Your task to perform on an android device: Open the Play Movies app and select the watchlist tab. Image 0: 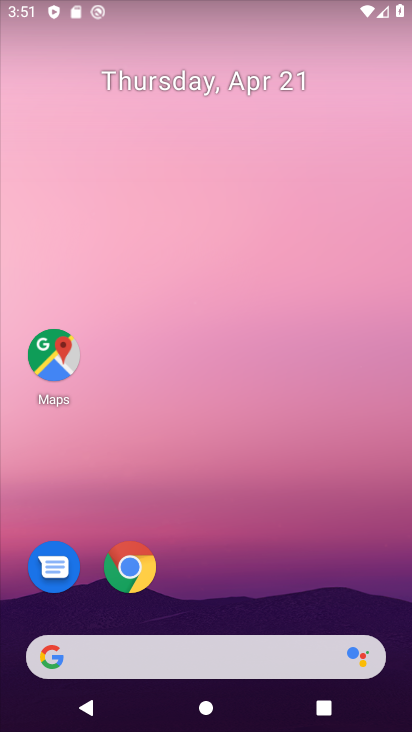
Step 0: drag from (205, 484) to (92, 180)
Your task to perform on an android device: Open the Play Movies app and select the watchlist tab. Image 1: 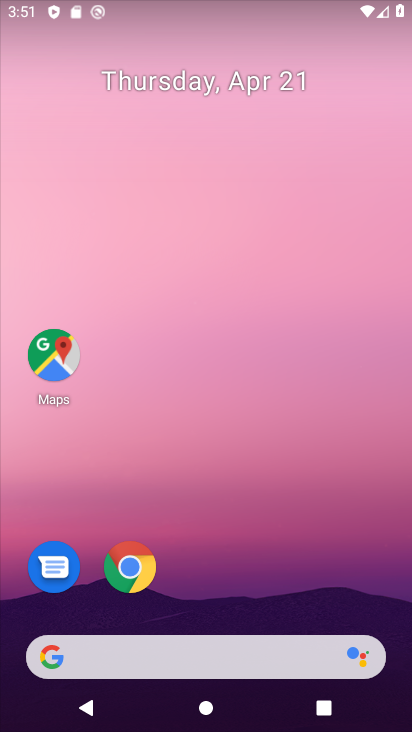
Step 1: drag from (232, 323) to (192, 204)
Your task to perform on an android device: Open the Play Movies app and select the watchlist tab. Image 2: 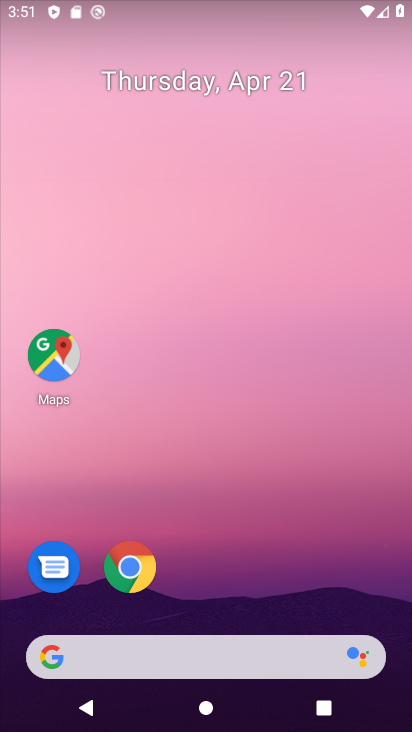
Step 2: drag from (248, 441) to (210, 293)
Your task to perform on an android device: Open the Play Movies app and select the watchlist tab. Image 3: 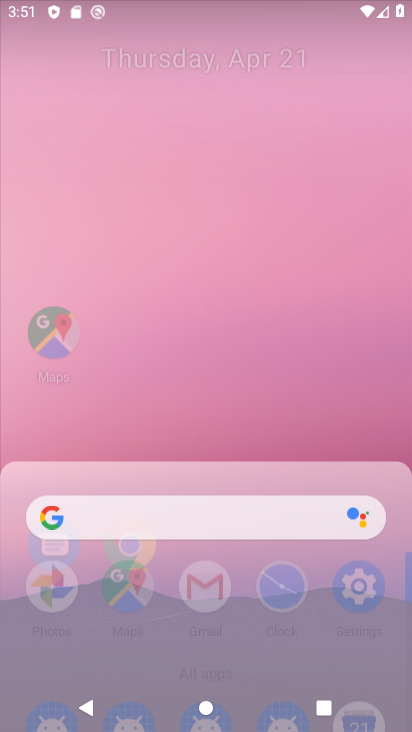
Step 3: drag from (270, 462) to (162, 183)
Your task to perform on an android device: Open the Play Movies app and select the watchlist tab. Image 4: 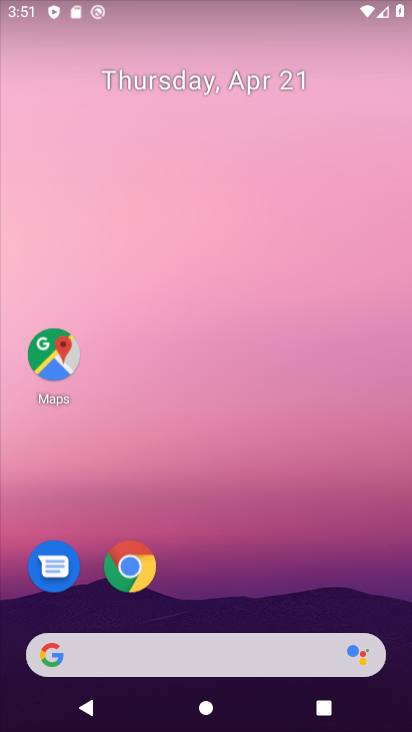
Step 4: drag from (218, 314) to (149, 149)
Your task to perform on an android device: Open the Play Movies app and select the watchlist tab. Image 5: 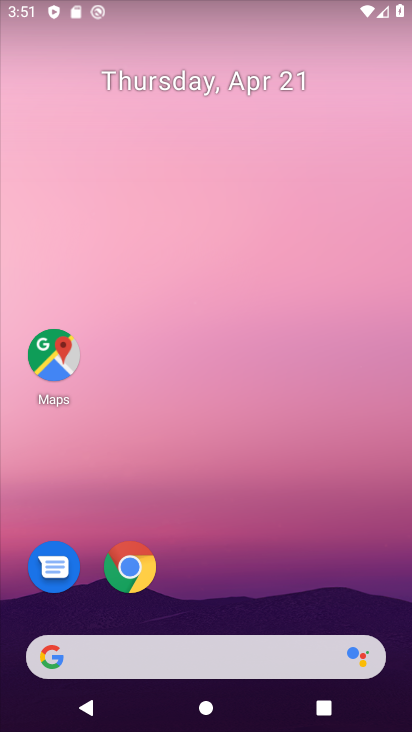
Step 5: drag from (138, 194) to (126, 150)
Your task to perform on an android device: Open the Play Movies app and select the watchlist tab. Image 6: 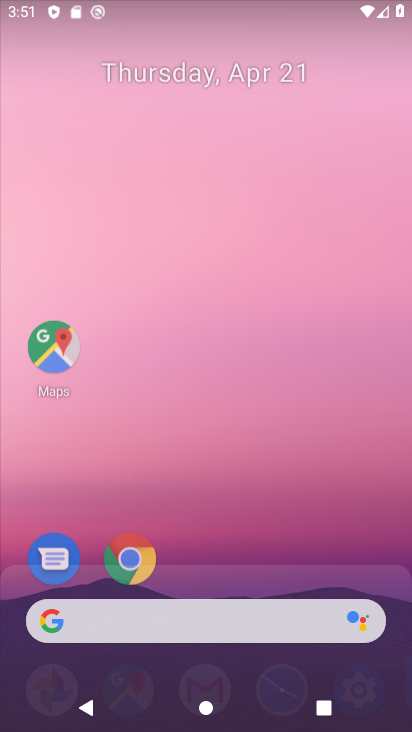
Step 6: click (103, 98)
Your task to perform on an android device: Open the Play Movies app and select the watchlist tab. Image 7: 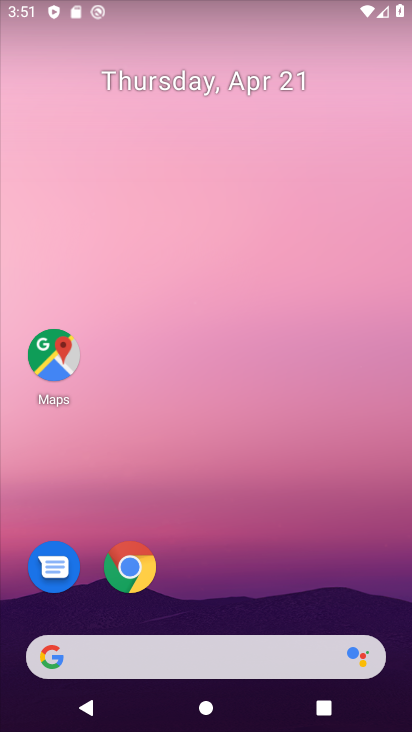
Step 7: drag from (178, 250) to (113, 79)
Your task to perform on an android device: Open the Play Movies app and select the watchlist tab. Image 8: 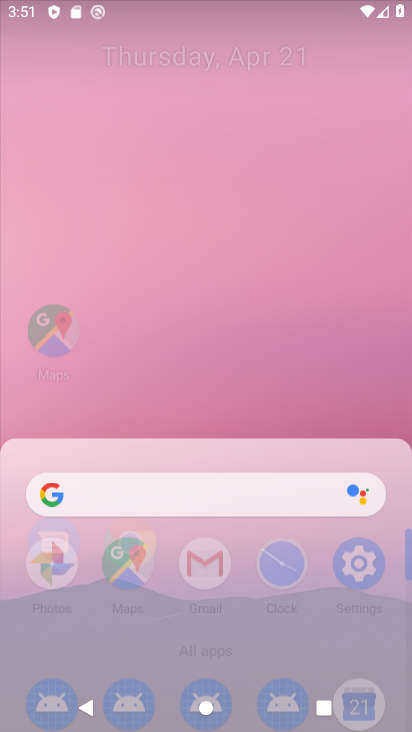
Step 8: drag from (144, 187) to (135, 143)
Your task to perform on an android device: Open the Play Movies app and select the watchlist tab. Image 9: 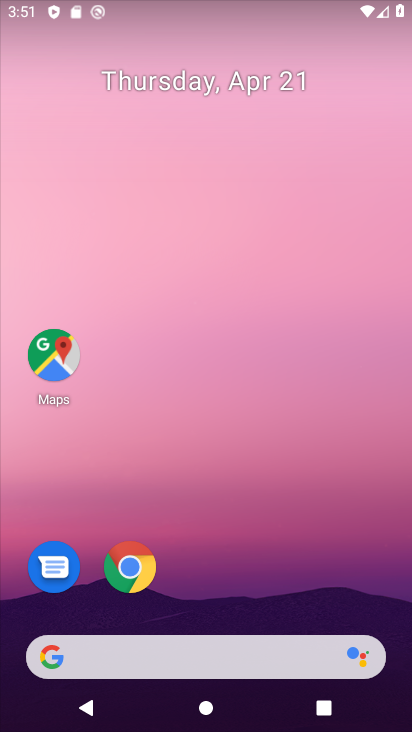
Step 9: drag from (116, 286) to (50, 81)
Your task to perform on an android device: Open the Play Movies app and select the watchlist tab. Image 10: 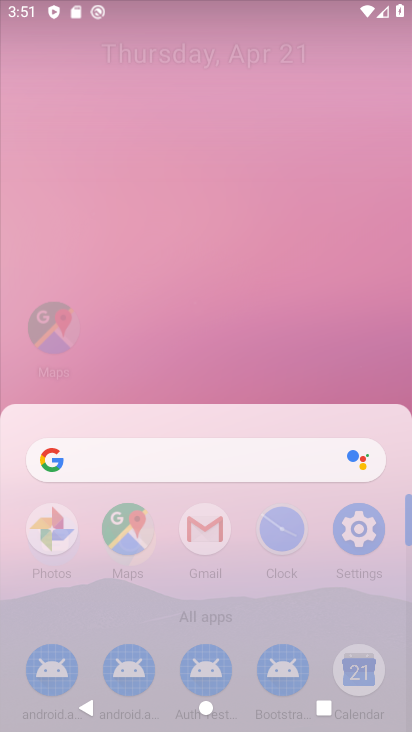
Step 10: drag from (106, 247) to (46, 0)
Your task to perform on an android device: Open the Play Movies app and select the watchlist tab. Image 11: 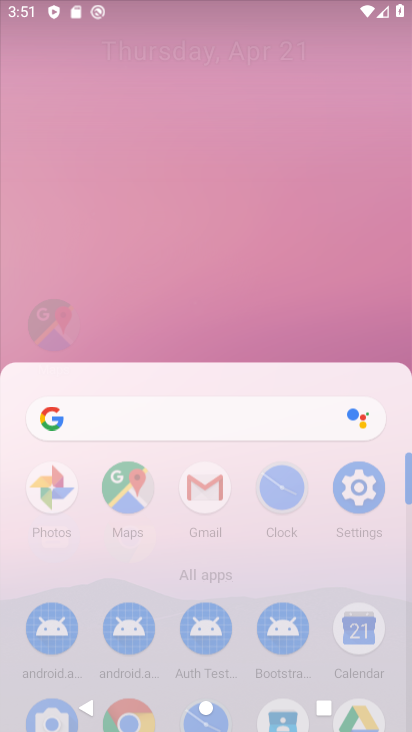
Step 11: drag from (177, 180) to (159, 19)
Your task to perform on an android device: Open the Play Movies app and select the watchlist tab. Image 12: 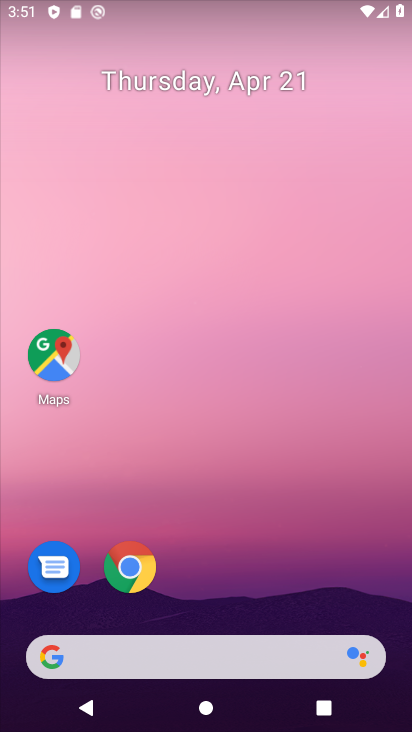
Step 12: drag from (233, 417) to (119, 118)
Your task to perform on an android device: Open the Play Movies app and select the watchlist tab. Image 13: 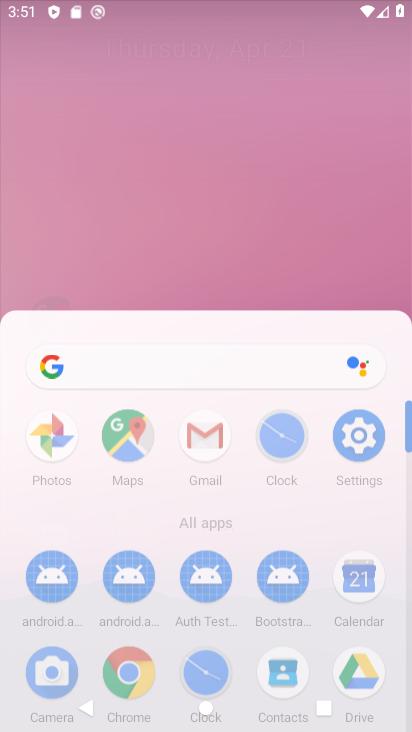
Step 13: click (163, 149)
Your task to perform on an android device: Open the Play Movies app and select the watchlist tab. Image 14: 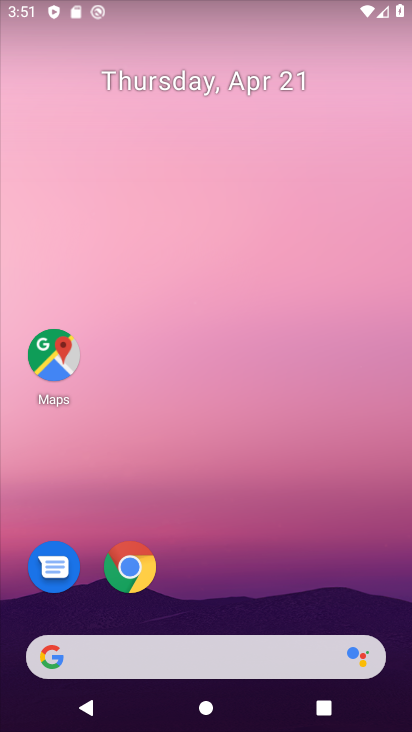
Step 14: drag from (213, 341) to (123, 58)
Your task to perform on an android device: Open the Play Movies app and select the watchlist tab. Image 15: 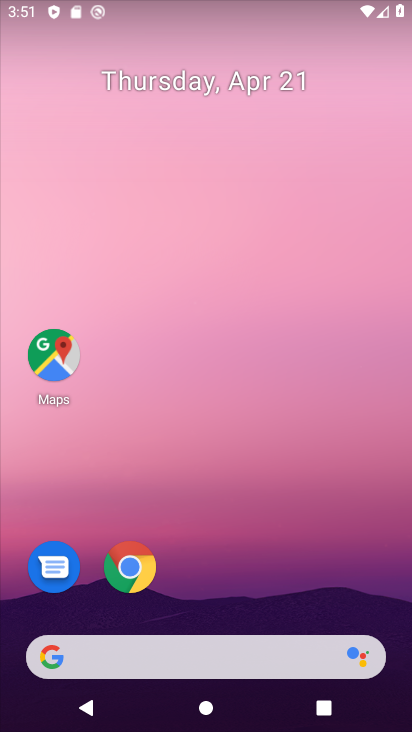
Step 15: drag from (133, 92) to (119, 44)
Your task to perform on an android device: Open the Play Movies app and select the watchlist tab. Image 16: 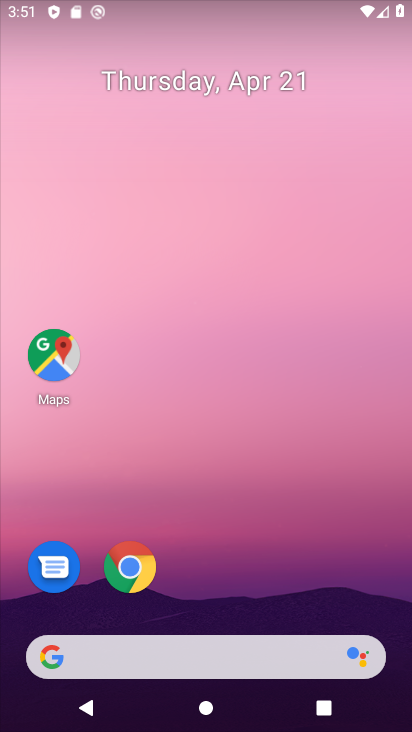
Step 16: drag from (152, 373) to (42, 32)
Your task to perform on an android device: Open the Play Movies app and select the watchlist tab. Image 17: 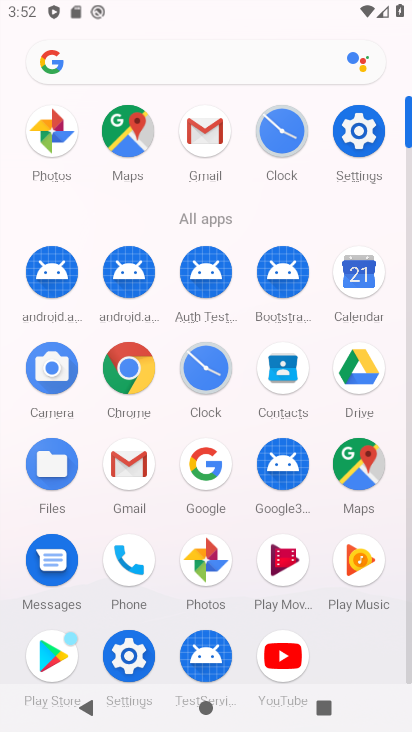
Step 17: click (276, 557)
Your task to perform on an android device: Open the Play Movies app and select the watchlist tab. Image 18: 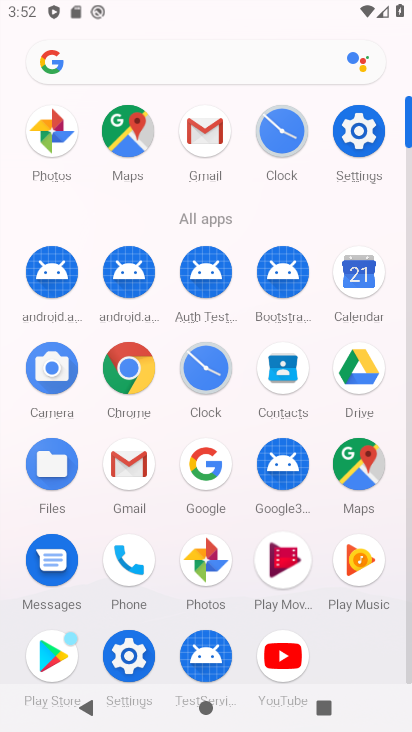
Step 18: click (277, 556)
Your task to perform on an android device: Open the Play Movies app and select the watchlist tab. Image 19: 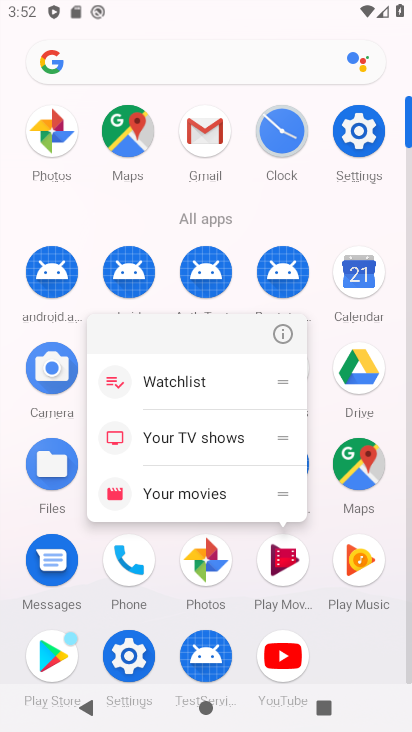
Step 19: click (277, 556)
Your task to perform on an android device: Open the Play Movies app and select the watchlist tab. Image 20: 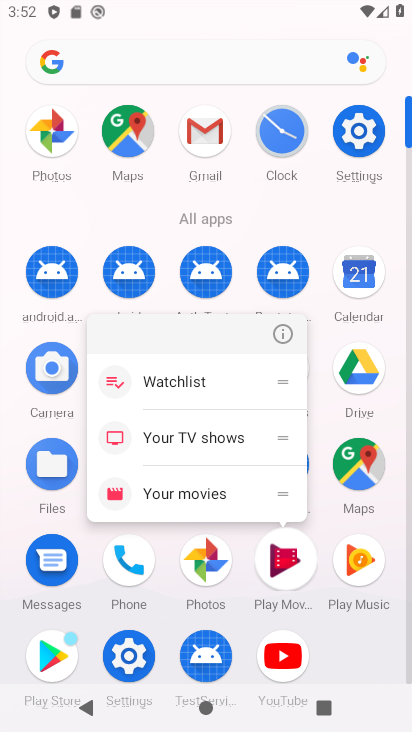
Step 20: click (280, 555)
Your task to perform on an android device: Open the Play Movies app and select the watchlist tab. Image 21: 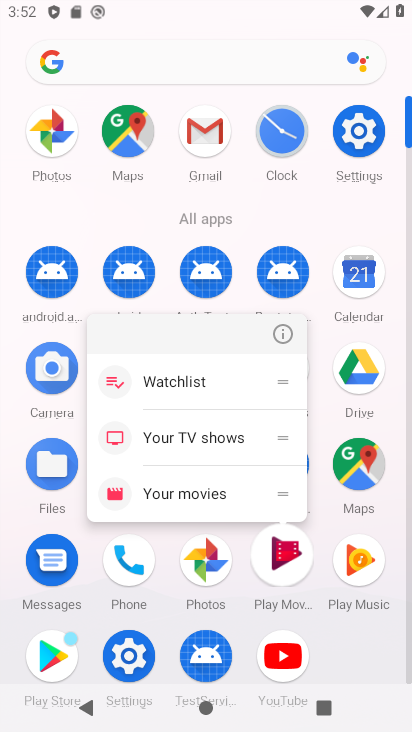
Step 21: click (279, 550)
Your task to perform on an android device: Open the Play Movies app and select the watchlist tab. Image 22: 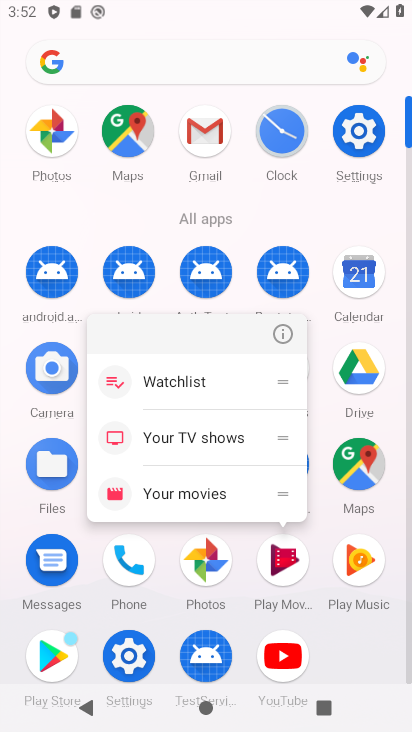
Step 22: click (284, 560)
Your task to perform on an android device: Open the Play Movies app and select the watchlist tab. Image 23: 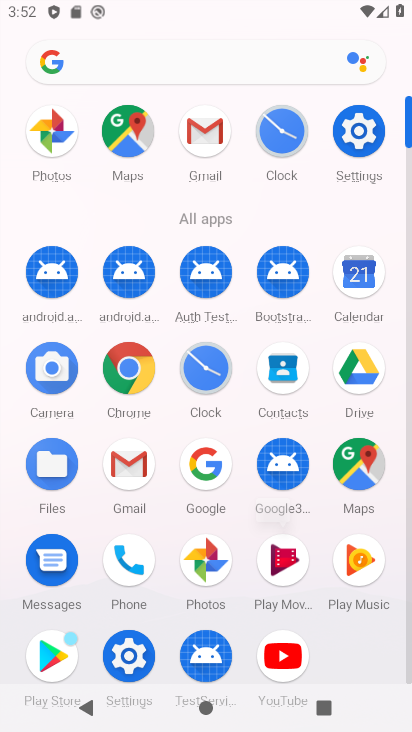
Step 23: click (284, 561)
Your task to perform on an android device: Open the Play Movies app and select the watchlist tab. Image 24: 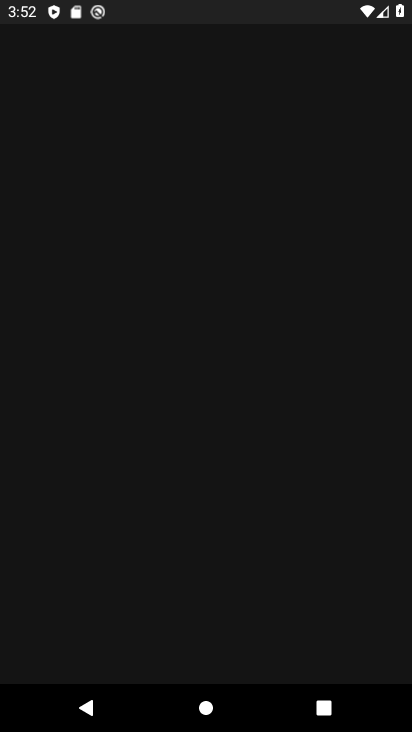
Step 24: click (294, 555)
Your task to perform on an android device: Open the Play Movies app and select the watchlist tab. Image 25: 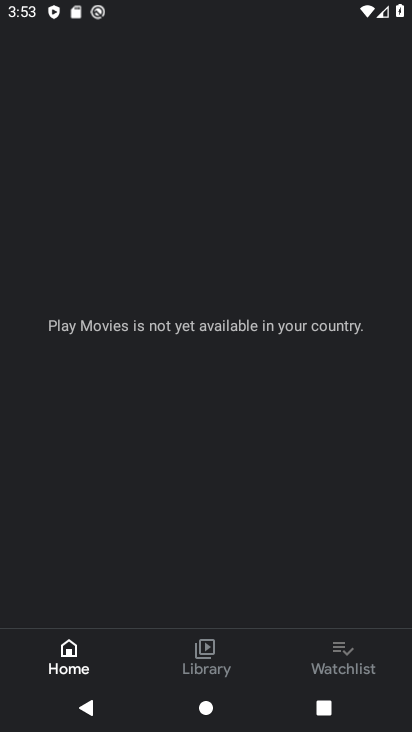
Step 25: click (342, 654)
Your task to perform on an android device: Open the Play Movies app and select the watchlist tab. Image 26: 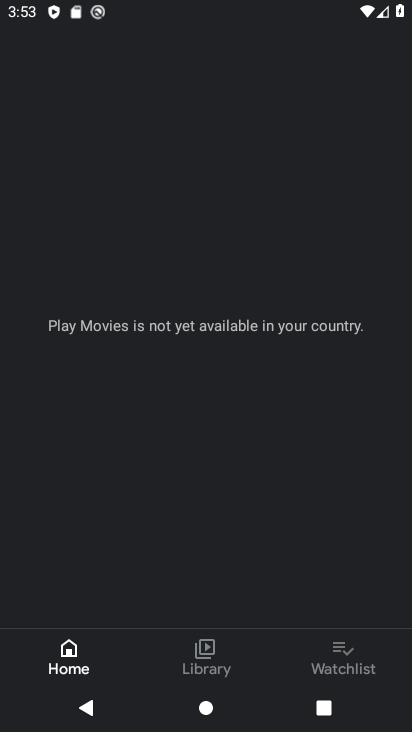
Step 26: click (338, 636)
Your task to perform on an android device: Open the Play Movies app and select the watchlist tab. Image 27: 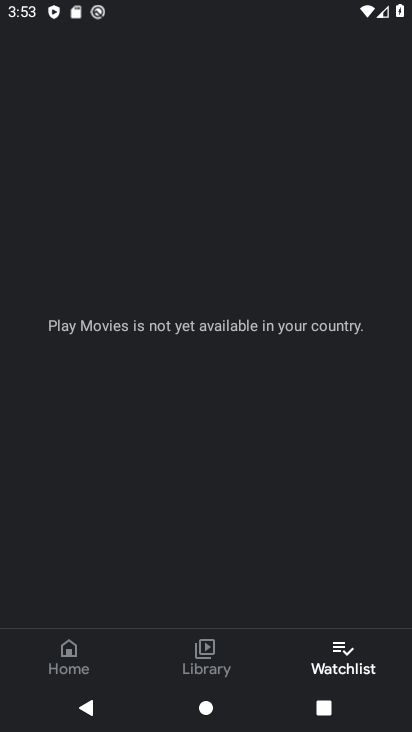
Step 27: click (340, 659)
Your task to perform on an android device: Open the Play Movies app and select the watchlist tab. Image 28: 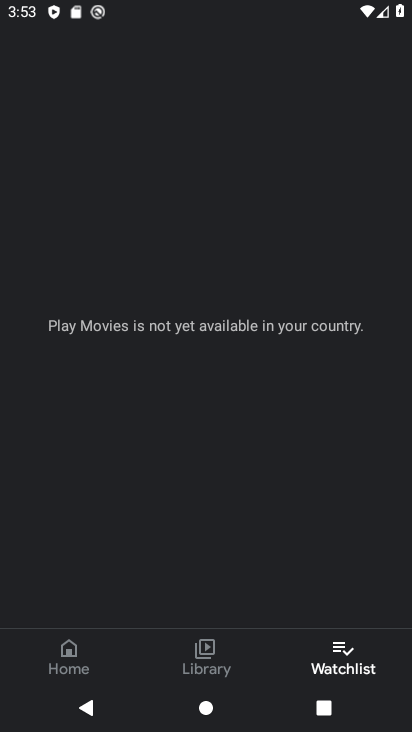
Step 28: task complete